Your task to perform on an android device: turn on data saver in the chrome app Image 0: 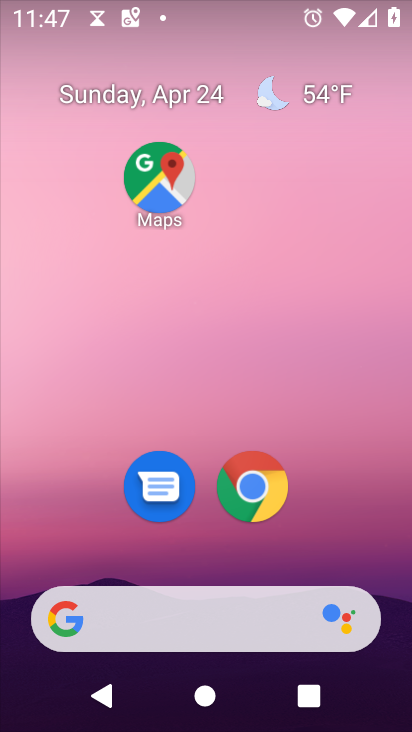
Step 0: click (268, 484)
Your task to perform on an android device: turn on data saver in the chrome app Image 1: 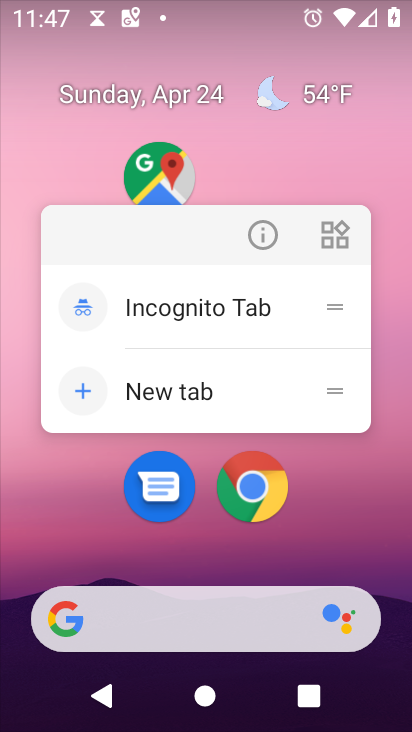
Step 1: click (265, 234)
Your task to perform on an android device: turn on data saver in the chrome app Image 2: 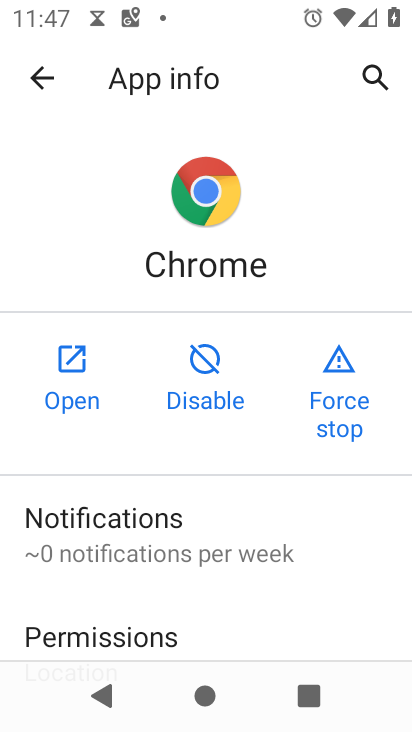
Step 2: click (64, 384)
Your task to perform on an android device: turn on data saver in the chrome app Image 3: 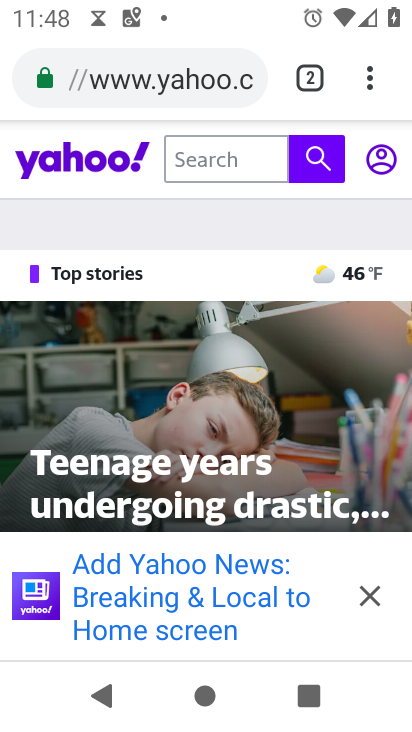
Step 3: click (370, 89)
Your task to perform on an android device: turn on data saver in the chrome app Image 4: 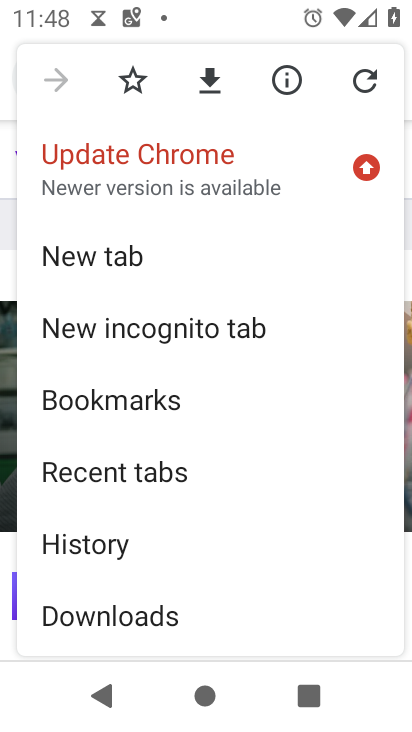
Step 4: drag from (248, 525) to (242, 180)
Your task to perform on an android device: turn on data saver in the chrome app Image 5: 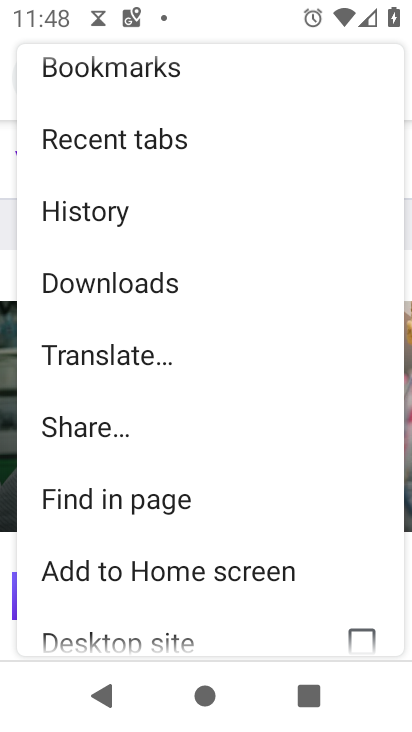
Step 5: drag from (171, 505) to (204, 164)
Your task to perform on an android device: turn on data saver in the chrome app Image 6: 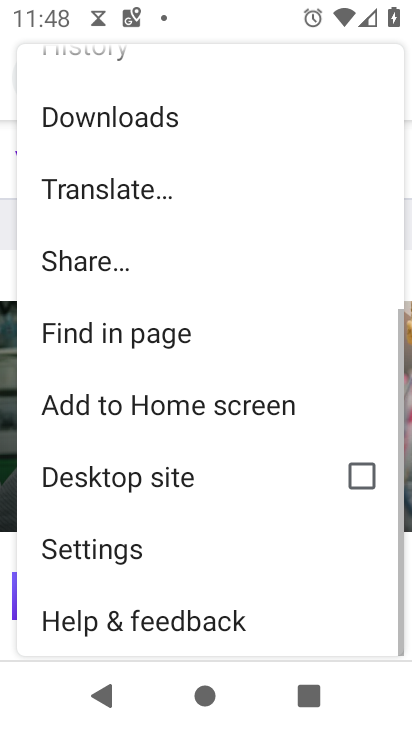
Step 6: click (134, 562)
Your task to perform on an android device: turn on data saver in the chrome app Image 7: 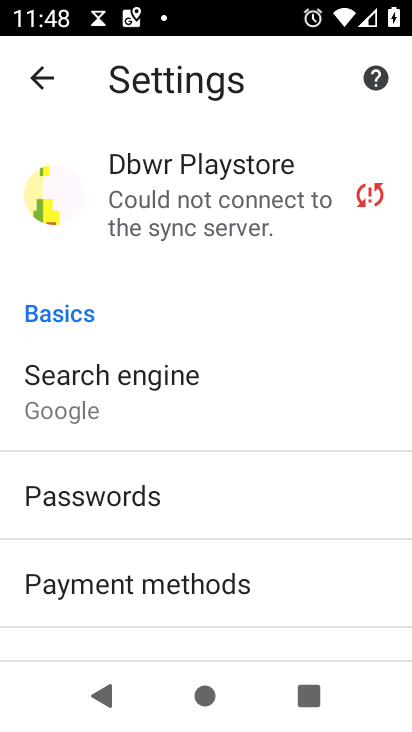
Step 7: drag from (193, 549) to (217, 143)
Your task to perform on an android device: turn on data saver in the chrome app Image 8: 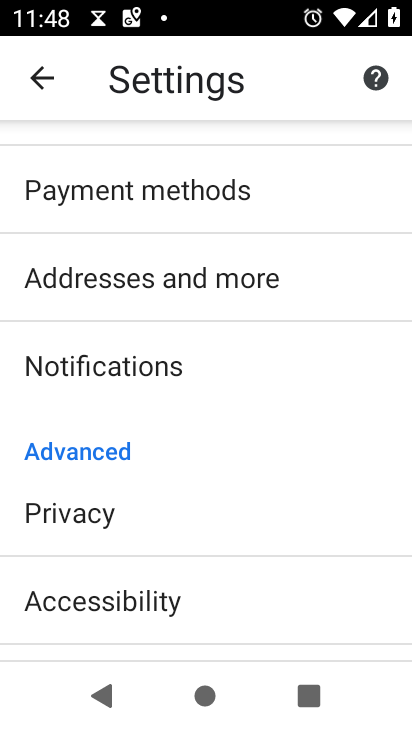
Step 8: drag from (208, 532) to (252, 251)
Your task to perform on an android device: turn on data saver in the chrome app Image 9: 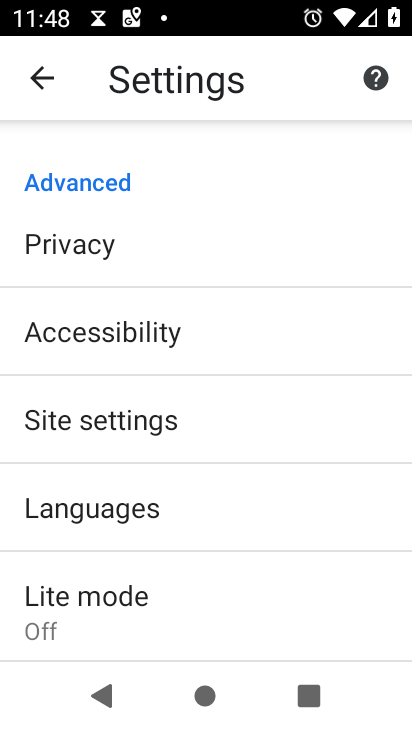
Step 9: drag from (173, 608) to (215, 337)
Your task to perform on an android device: turn on data saver in the chrome app Image 10: 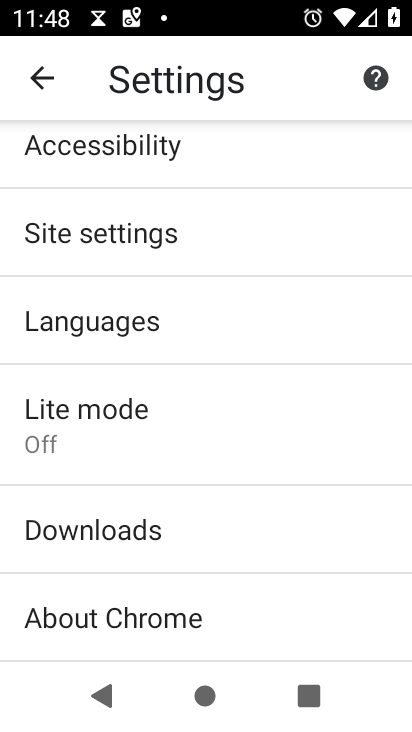
Step 10: click (171, 434)
Your task to perform on an android device: turn on data saver in the chrome app Image 11: 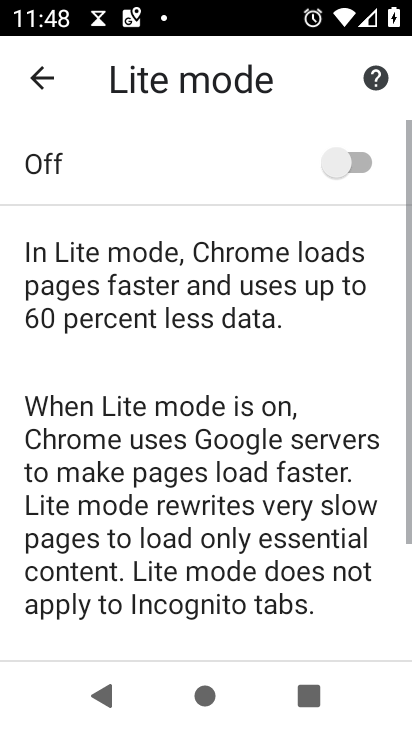
Step 11: click (329, 151)
Your task to perform on an android device: turn on data saver in the chrome app Image 12: 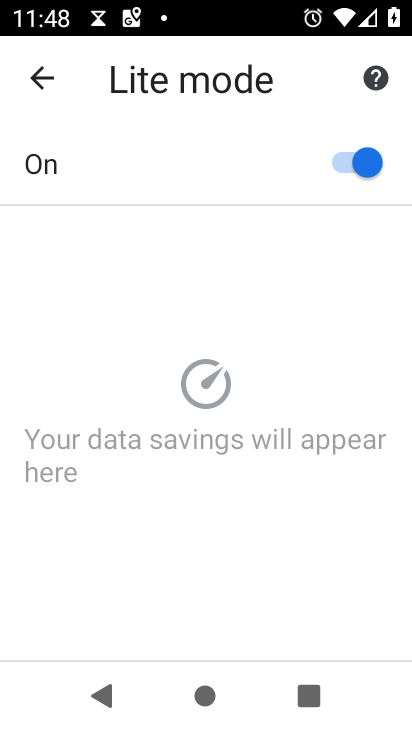
Step 12: task complete